Your task to perform on an android device: turn off notifications settings in the gmail app Image 0: 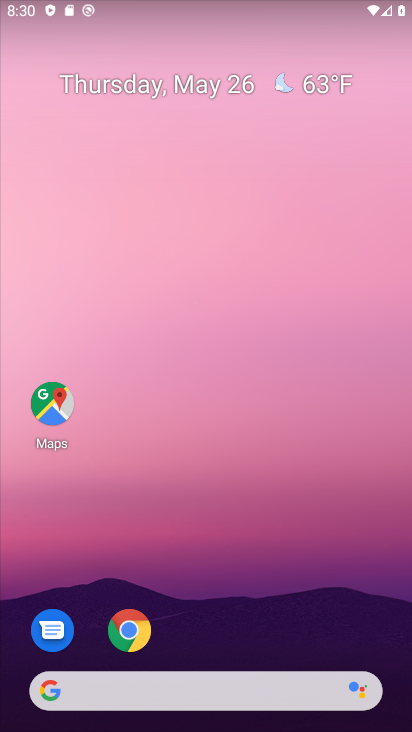
Step 0: drag from (213, 495) to (134, 120)
Your task to perform on an android device: turn off notifications settings in the gmail app Image 1: 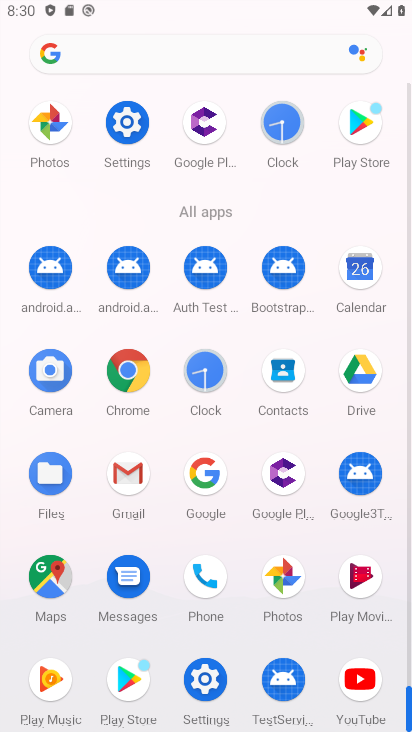
Step 1: click (205, 693)
Your task to perform on an android device: turn off notifications settings in the gmail app Image 2: 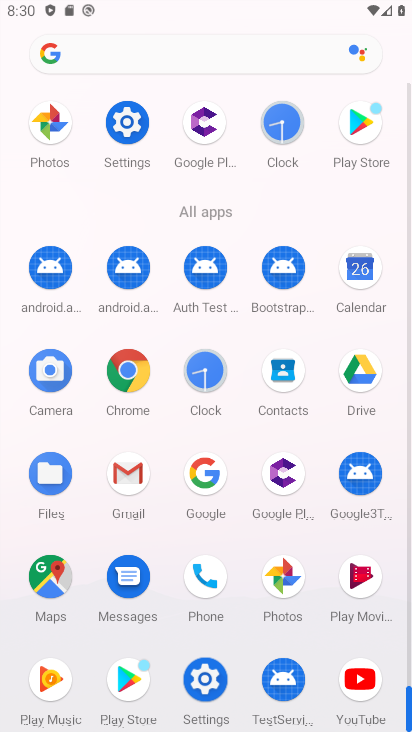
Step 2: click (203, 689)
Your task to perform on an android device: turn off notifications settings in the gmail app Image 3: 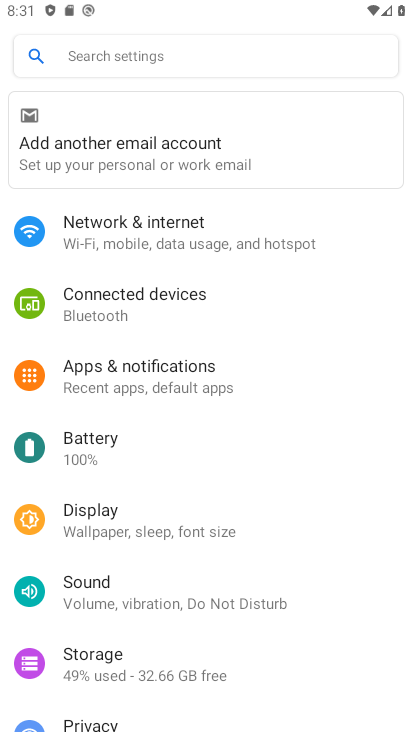
Step 3: press back button
Your task to perform on an android device: turn off notifications settings in the gmail app Image 4: 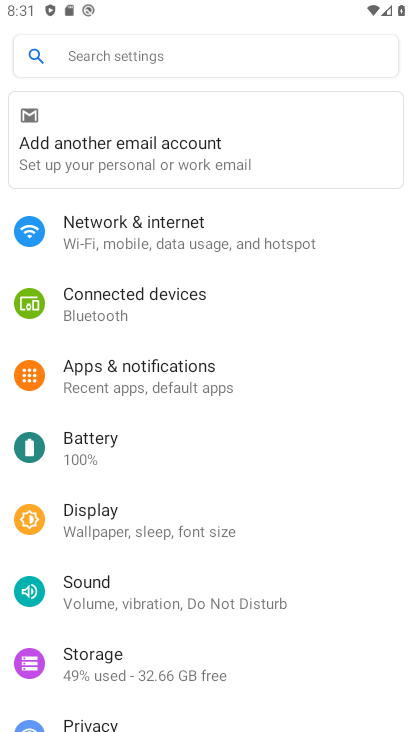
Step 4: press back button
Your task to perform on an android device: turn off notifications settings in the gmail app Image 5: 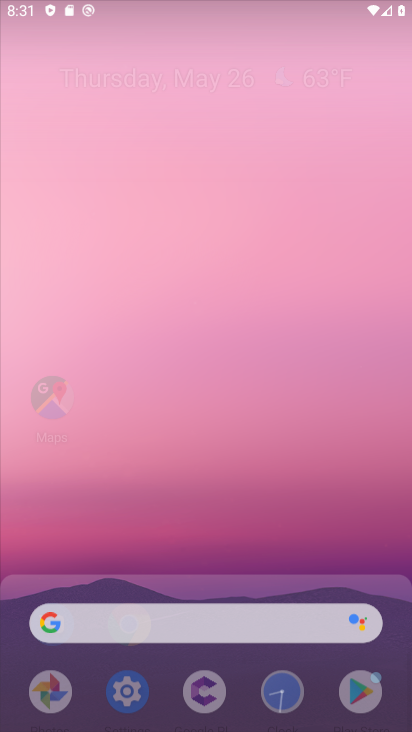
Step 5: press back button
Your task to perform on an android device: turn off notifications settings in the gmail app Image 6: 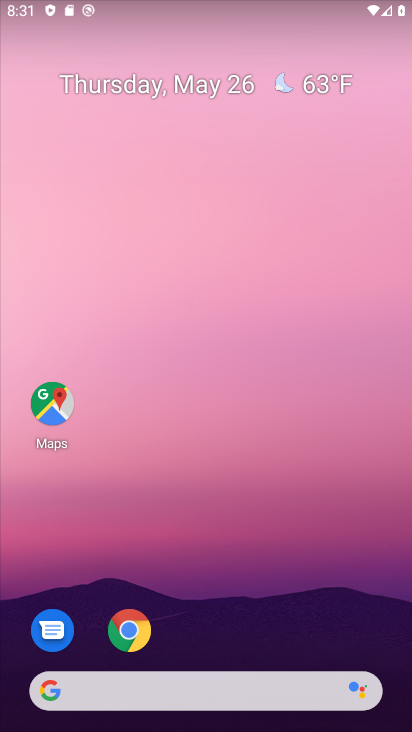
Step 6: press home button
Your task to perform on an android device: turn off notifications settings in the gmail app Image 7: 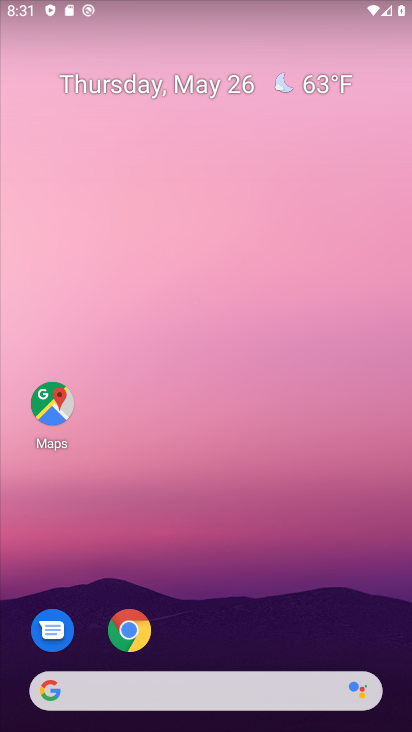
Step 7: drag from (285, 702) to (111, 52)
Your task to perform on an android device: turn off notifications settings in the gmail app Image 8: 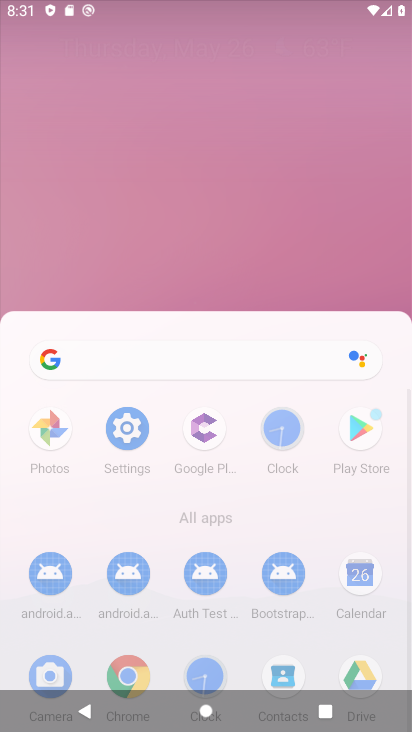
Step 8: drag from (272, 591) to (204, 21)
Your task to perform on an android device: turn off notifications settings in the gmail app Image 9: 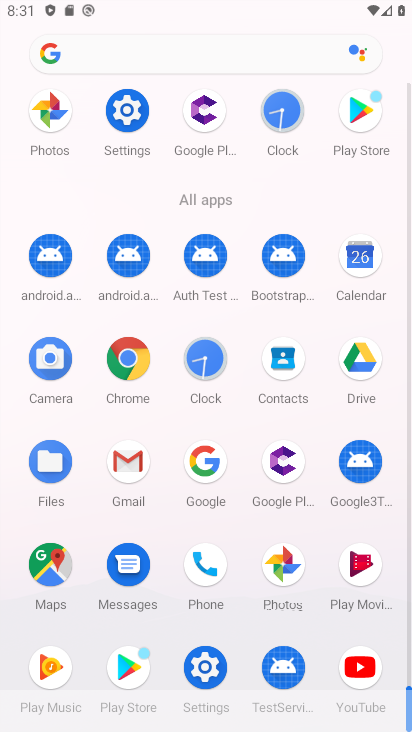
Step 9: click (115, 471)
Your task to perform on an android device: turn off notifications settings in the gmail app Image 10: 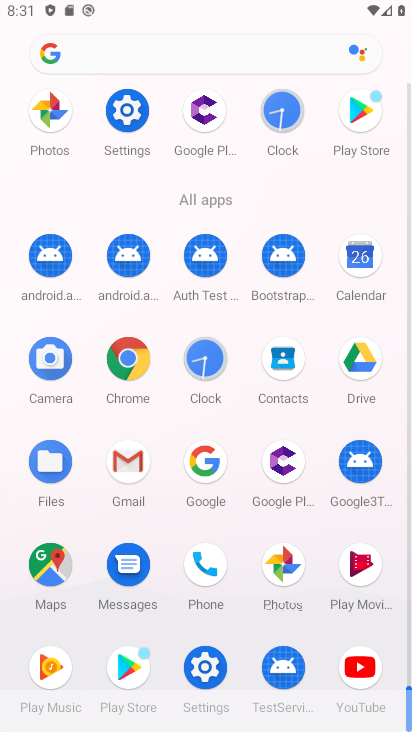
Step 10: click (115, 465)
Your task to perform on an android device: turn off notifications settings in the gmail app Image 11: 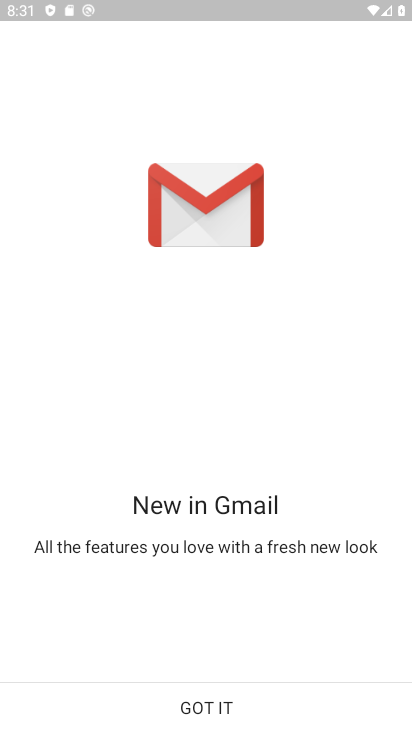
Step 11: click (223, 703)
Your task to perform on an android device: turn off notifications settings in the gmail app Image 12: 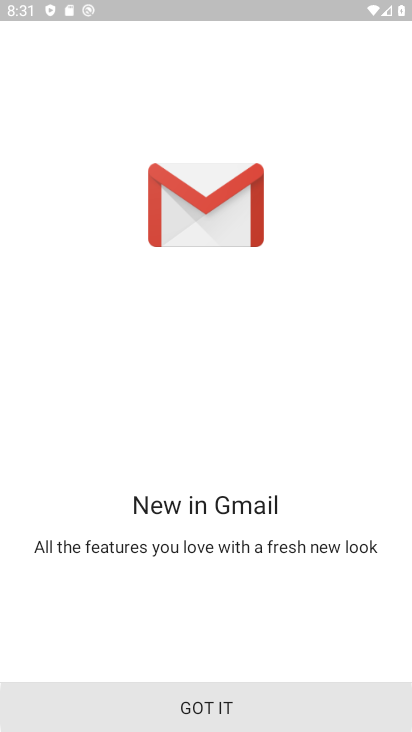
Step 12: click (222, 703)
Your task to perform on an android device: turn off notifications settings in the gmail app Image 13: 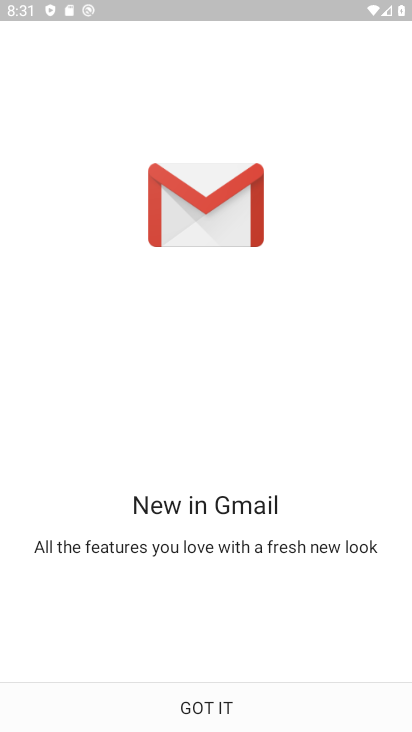
Step 13: click (220, 703)
Your task to perform on an android device: turn off notifications settings in the gmail app Image 14: 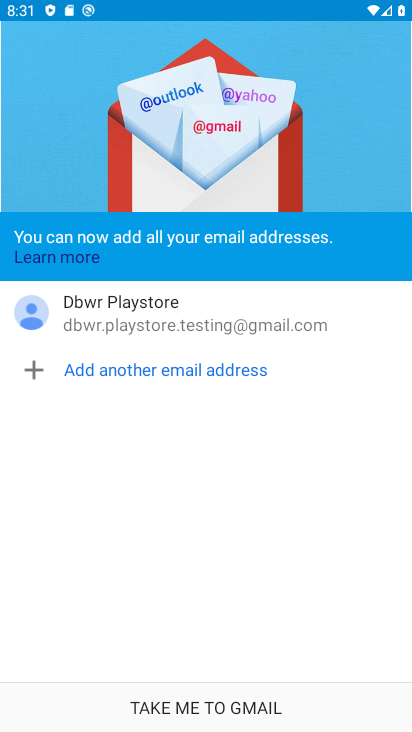
Step 14: click (225, 708)
Your task to perform on an android device: turn off notifications settings in the gmail app Image 15: 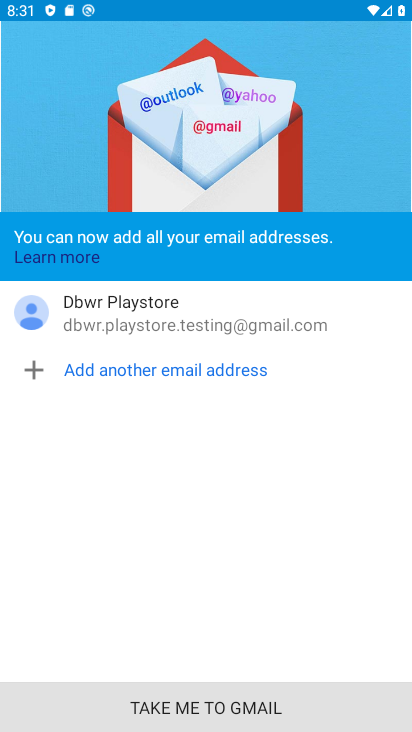
Step 15: click (225, 706)
Your task to perform on an android device: turn off notifications settings in the gmail app Image 16: 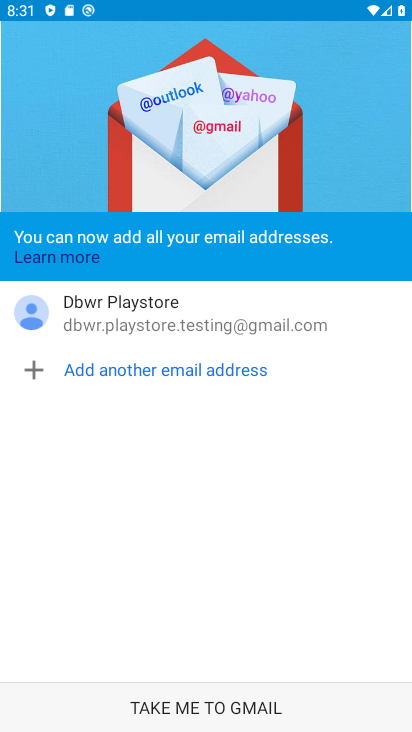
Step 16: click (225, 706)
Your task to perform on an android device: turn off notifications settings in the gmail app Image 17: 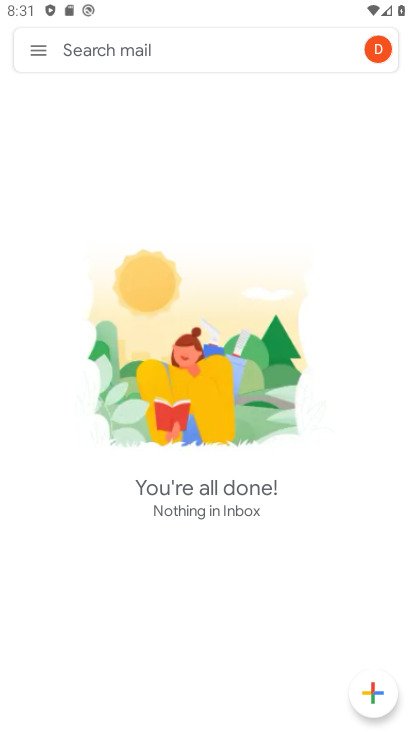
Step 17: click (39, 45)
Your task to perform on an android device: turn off notifications settings in the gmail app Image 18: 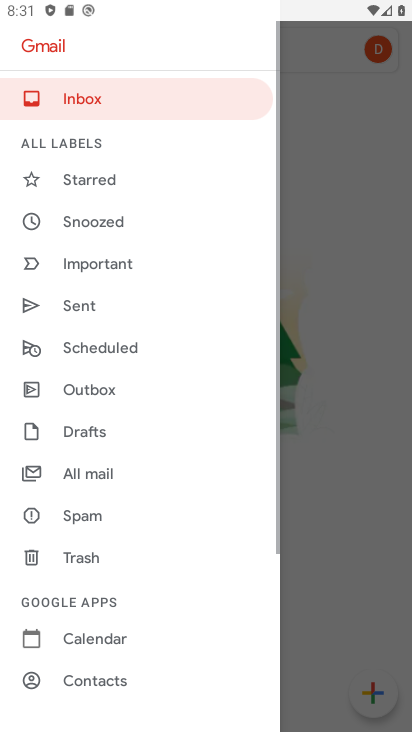
Step 18: click (39, 45)
Your task to perform on an android device: turn off notifications settings in the gmail app Image 19: 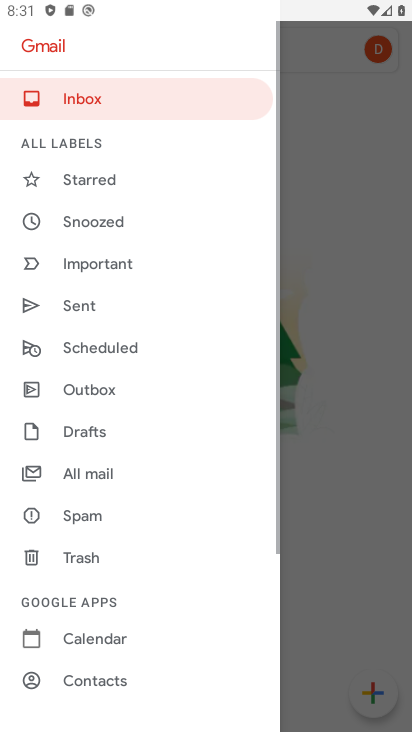
Step 19: click (39, 47)
Your task to perform on an android device: turn off notifications settings in the gmail app Image 20: 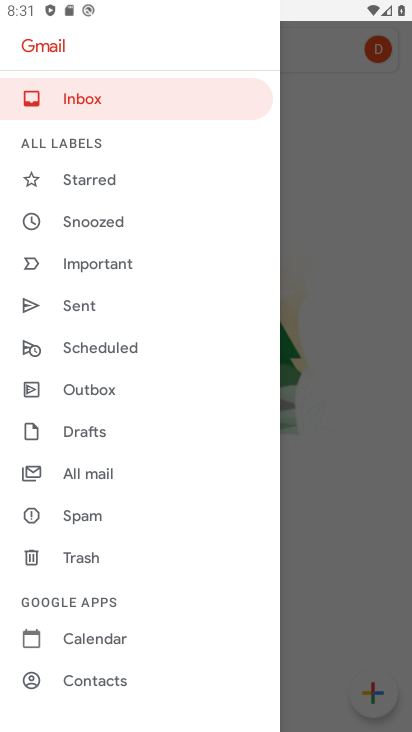
Step 20: drag from (110, 449) to (110, 132)
Your task to perform on an android device: turn off notifications settings in the gmail app Image 21: 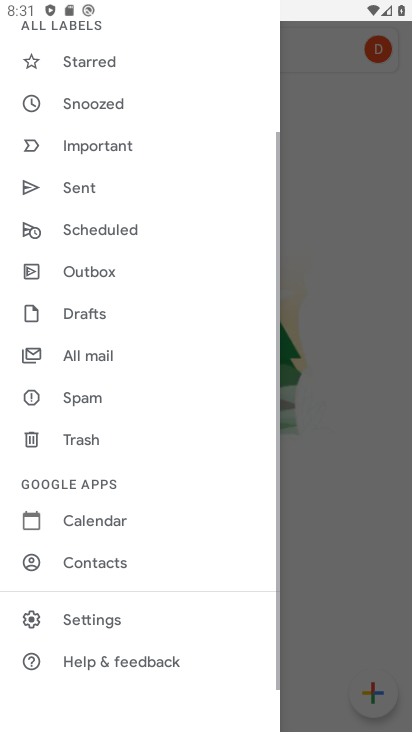
Step 21: click (176, 127)
Your task to perform on an android device: turn off notifications settings in the gmail app Image 22: 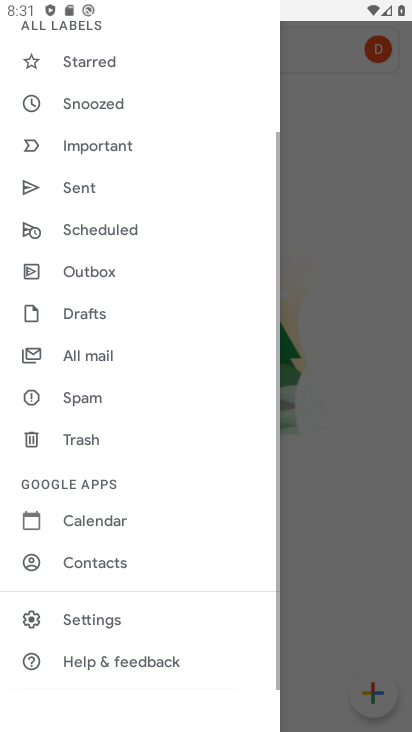
Step 22: drag from (158, 168) to (120, 84)
Your task to perform on an android device: turn off notifications settings in the gmail app Image 23: 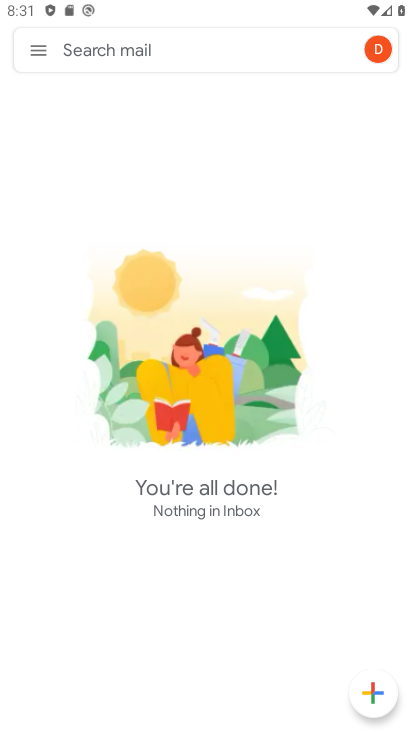
Step 23: click (103, 240)
Your task to perform on an android device: turn off notifications settings in the gmail app Image 24: 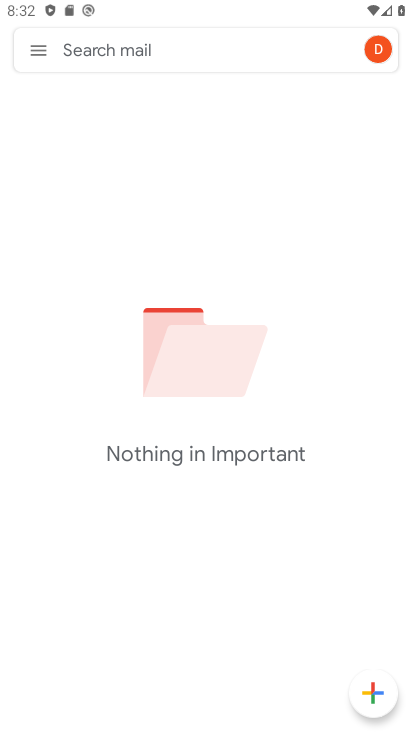
Step 24: click (38, 42)
Your task to perform on an android device: turn off notifications settings in the gmail app Image 25: 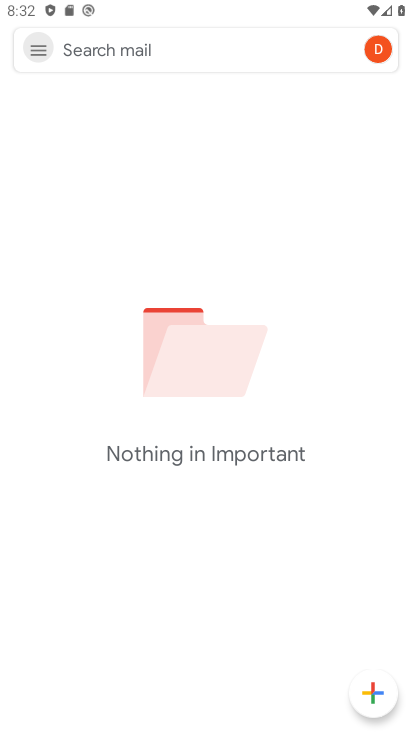
Step 25: click (39, 45)
Your task to perform on an android device: turn off notifications settings in the gmail app Image 26: 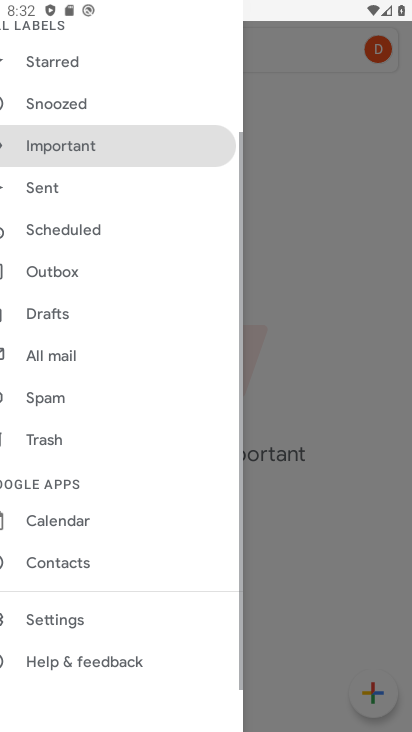
Step 26: click (39, 45)
Your task to perform on an android device: turn off notifications settings in the gmail app Image 27: 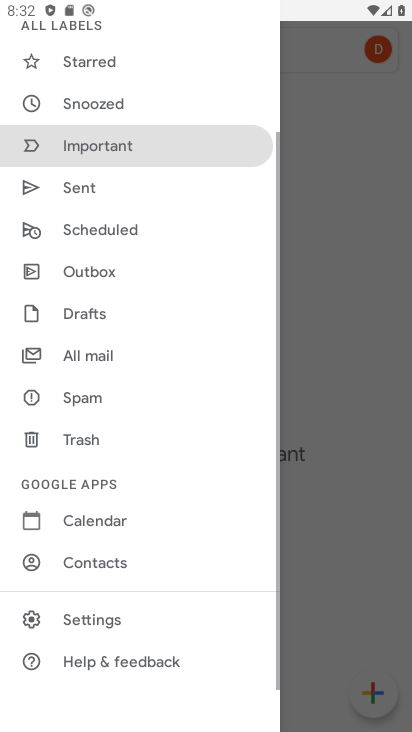
Step 27: click (105, 613)
Your task to perform on an android device: turn off notifications settings in the gmail app Image 28: 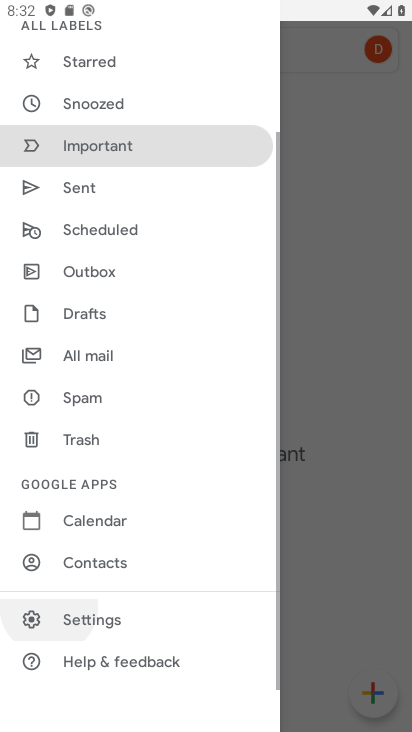
Step 28: click (105, 613)
Your task to perform on an android device: turn off notifications settings in the gmail app Image 29: 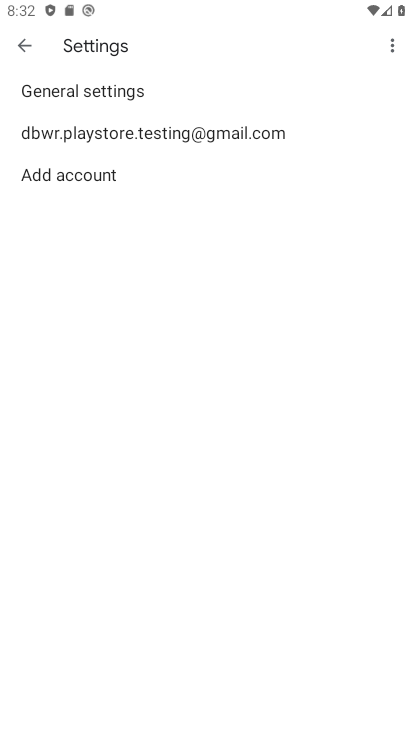
Step 29: click (106, 129)
Your task to perform on an android device: turn off notifications settings in the gmail app Image 30: 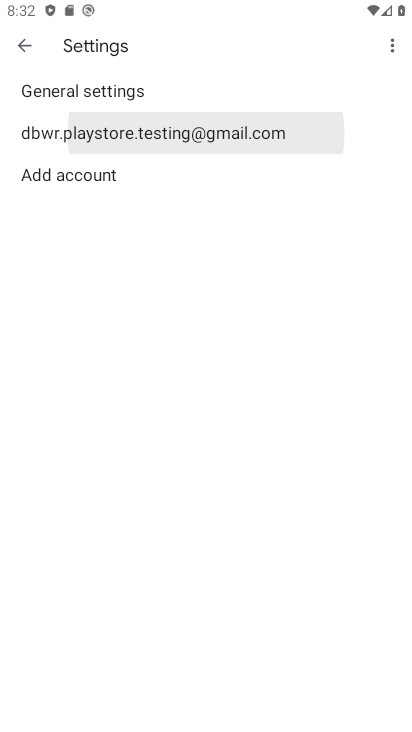
Step 30: click (106, 129)
Your task to perform on an android device: turn off notifications settings in the gmail app Image 31: 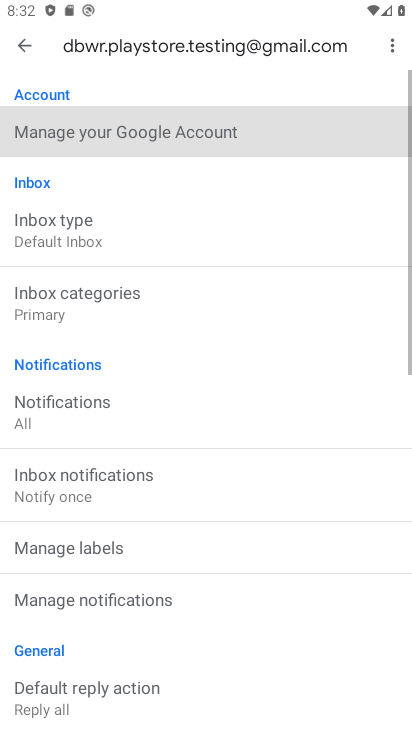
Step 31: click (107, 132)
Your task to perform on an android device: turn off notifications settings in the gmail app Image 32: 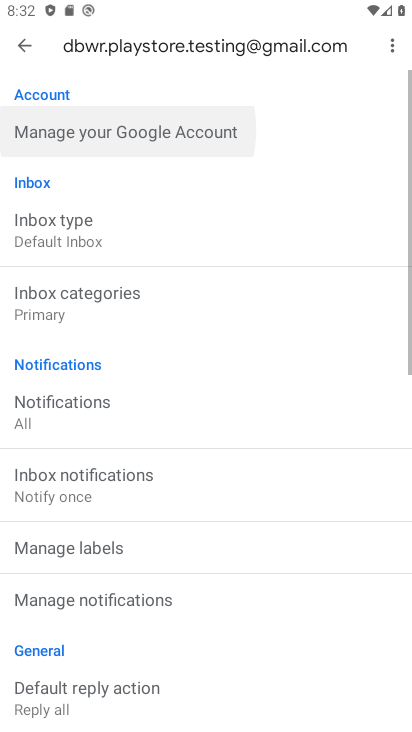
Step 32: click (108, 133)
Your task to perform on an android device: turn off notifications settings in the gmail app Image 33: 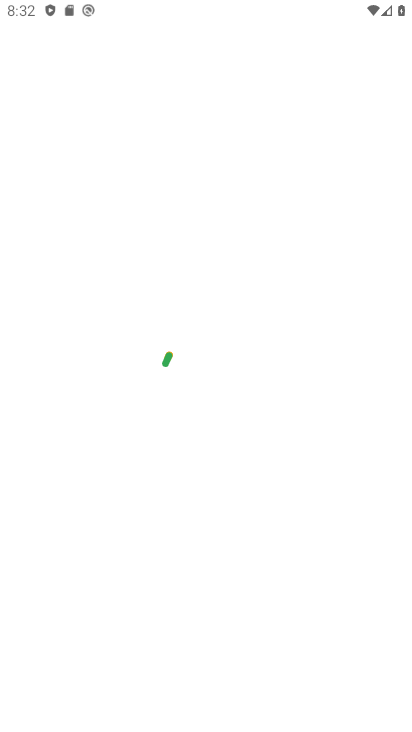
Step 33: task complete